Your task to perform on an android device: change text size in settings app Image 0: 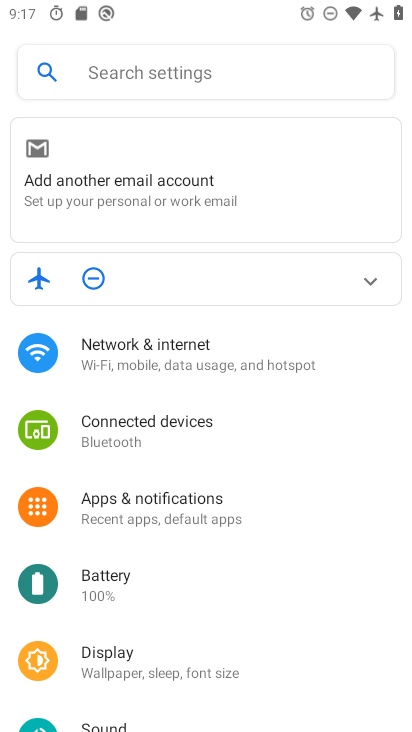
Step 0: press home button
Your task to perform on an android device: change text size in settings app Image 1: 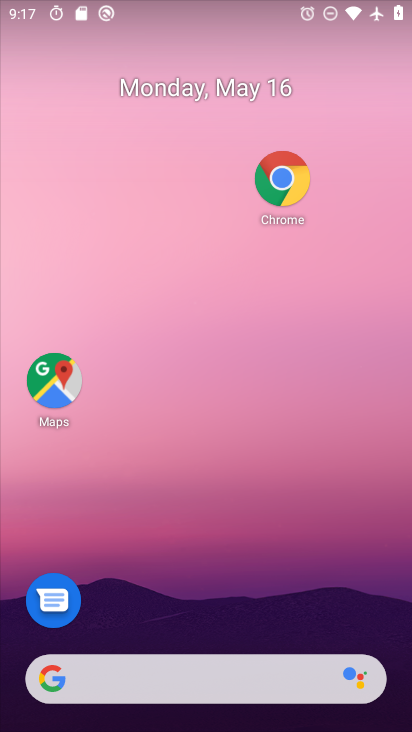
Step 1: drag from (261, 682) to (299, 351)
Your task to perform on an android device: change text size in settings app Image 2: 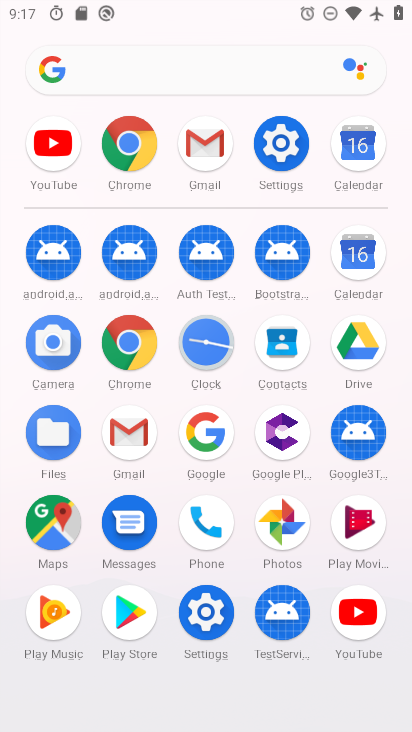
Step 2: click (271, 139)
Your task to perform on an android device: change text size in settings app Image 3: 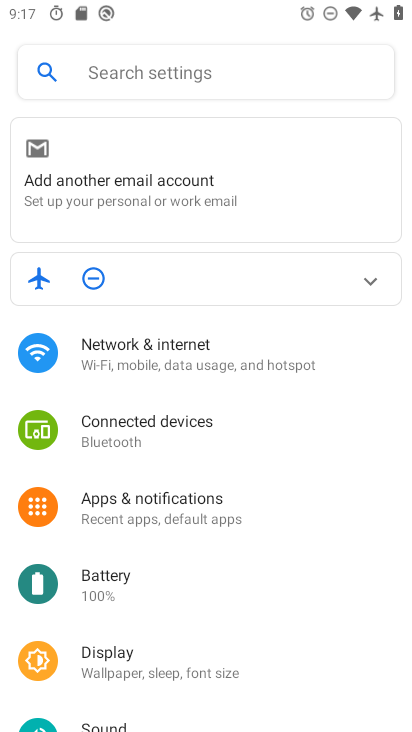
Step 3: click (169, 673)
Your task to perform on an android device: change text size in settings app Image 4: 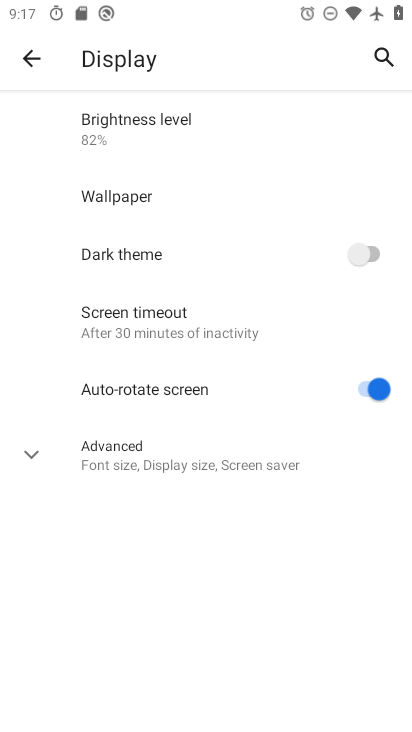
Step 4: click (156, 462)
Your task to perform on an android device: change text size in settings app Image 5: 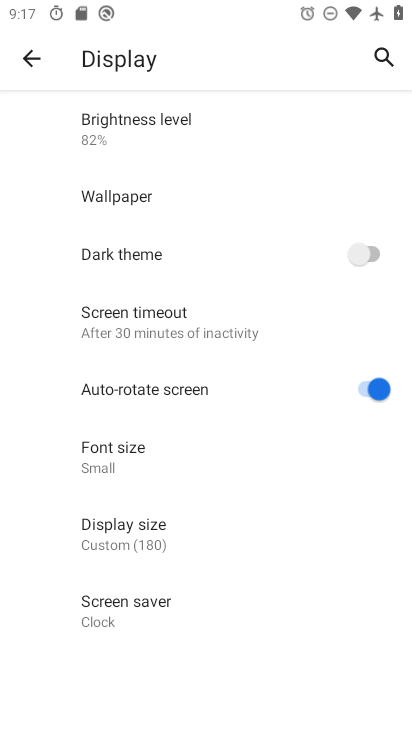
Step 5: click (130, 455)
Your task to perform on an android device: change text size in settings app Image 6: 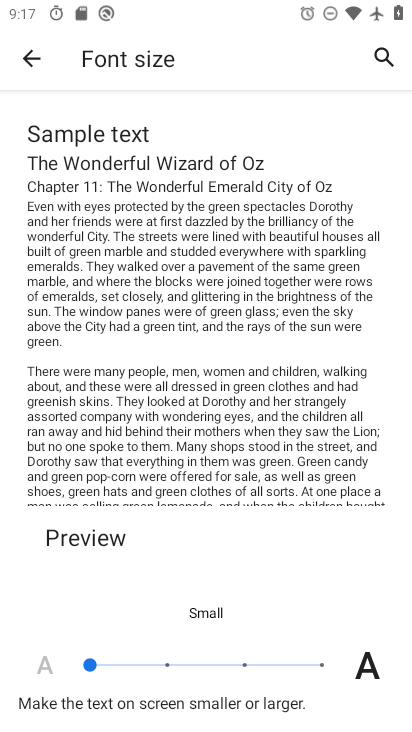
Step 6: click (165, 664)
Your task to perform on an android device: change text size in settings app Image 7: 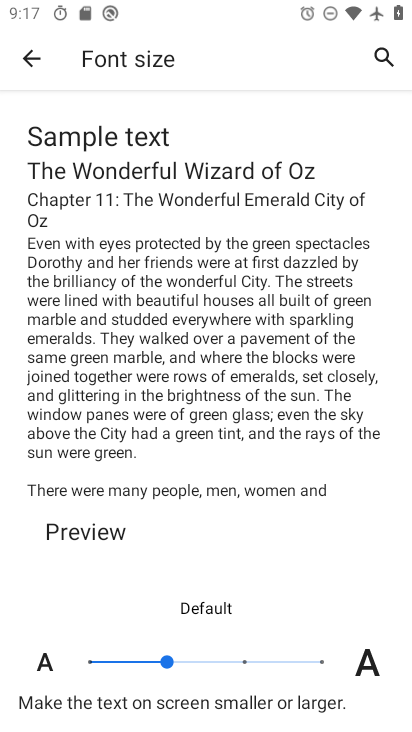
Step 7: task complete